Your task to perform on an android device: show emergency info Image 0: 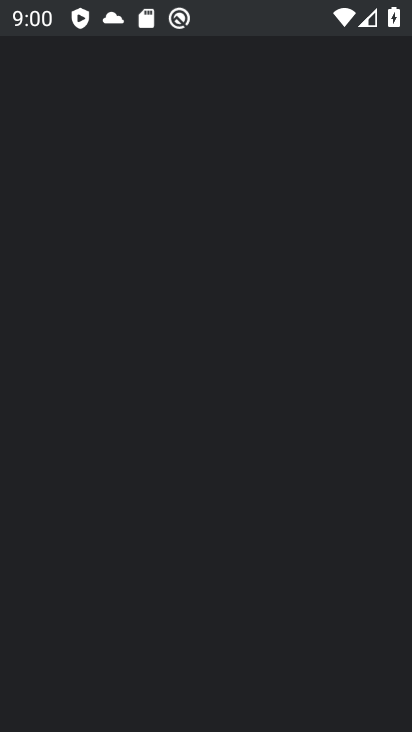
Step 0: drag from (266, 679) to (186, 210)
Your task to perform on an android device: show emergency info Image 1: 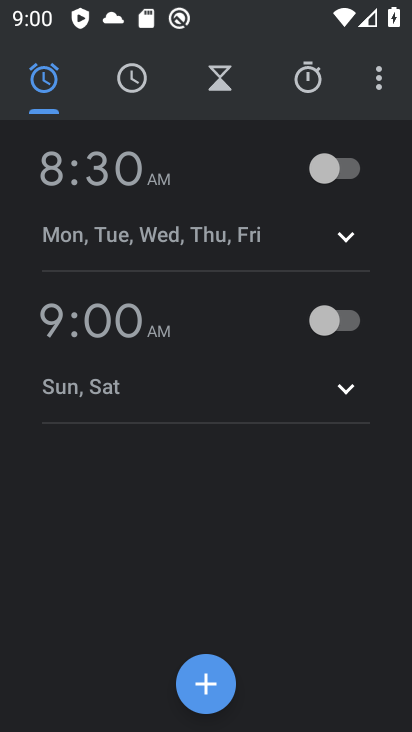
Step 1: press home button
Your task to perform on an android device: show emergency info Image 2: 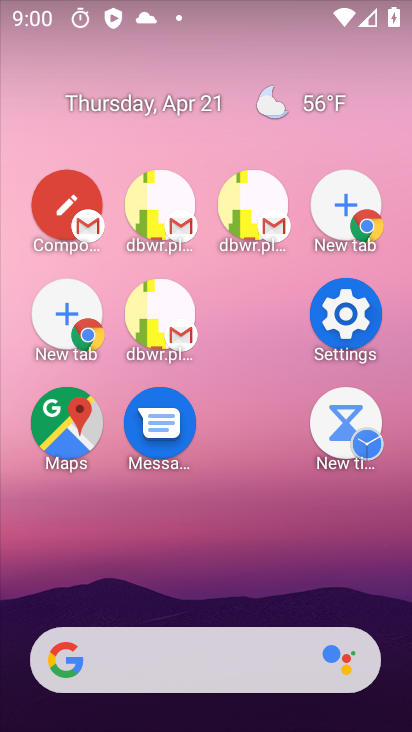
Step 2: drag from (304, 371) to (249, 107)
Your task to perform on an android device: show emergency info Image 3: 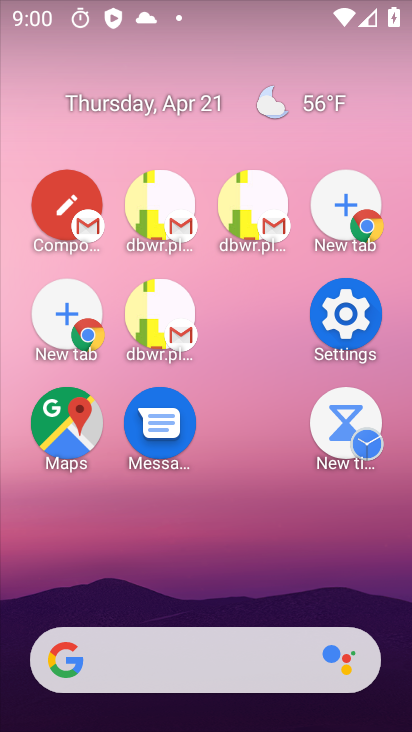
Step 3: drag from (269, 344) to (220, 39)
Your task to perform on an android device: show emergency info Image 4: 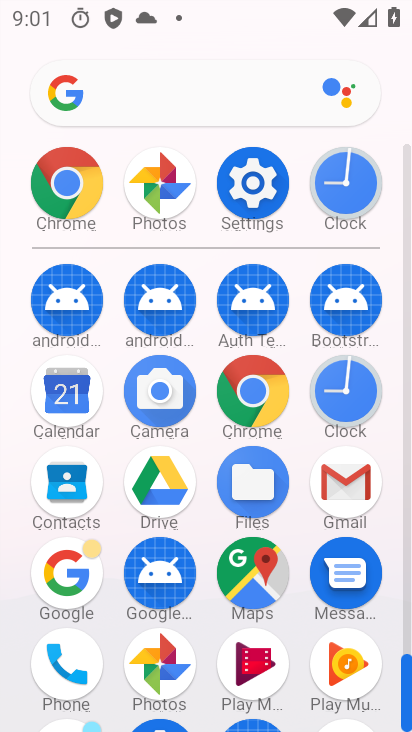
Step 4: click (253, 171)
Your task to perform on an android device: show emergency info Image 5: 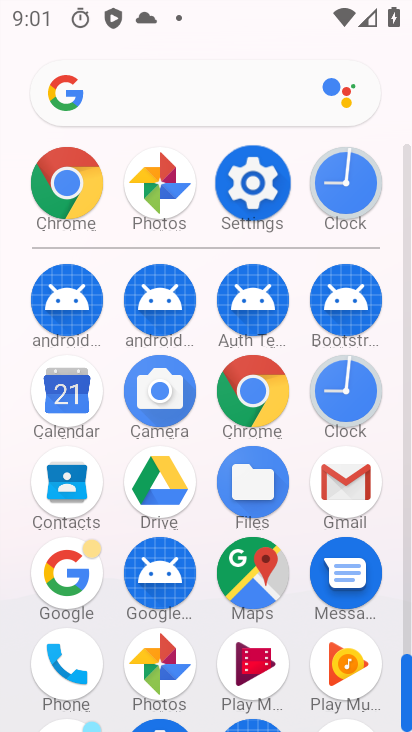
Step 5: click (253, 172)
Your task to perform on an android device: show emergency info Image 6: 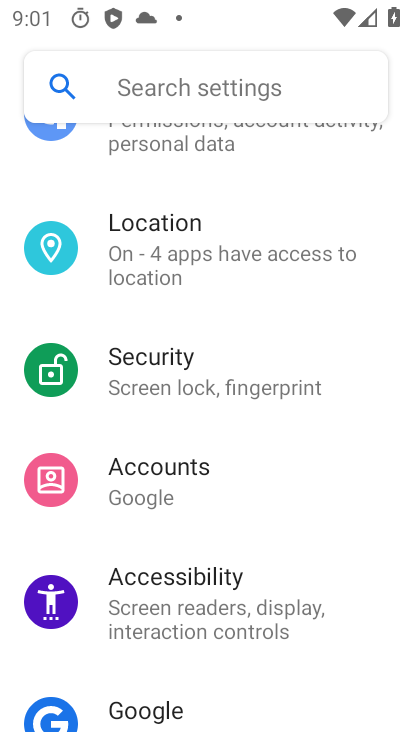
Step 6: drag from (167, 499) to (202, 253)
Your task to perform on an android device: show emergency info Image 7: 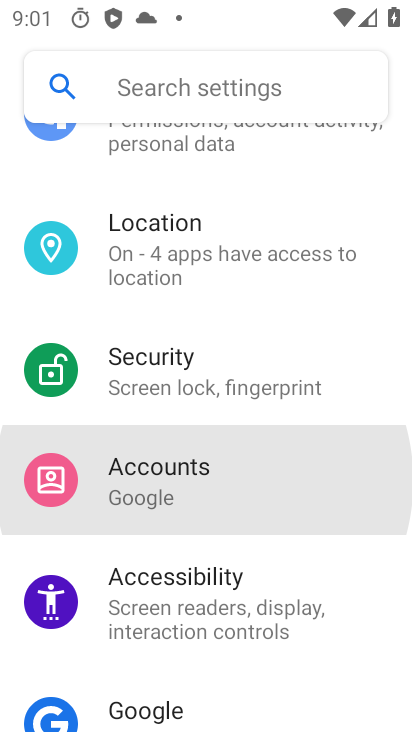
Step 7: drag from (227, 552) to (227, 272)
Your task to perform on an android device: show emergency info Image 8: 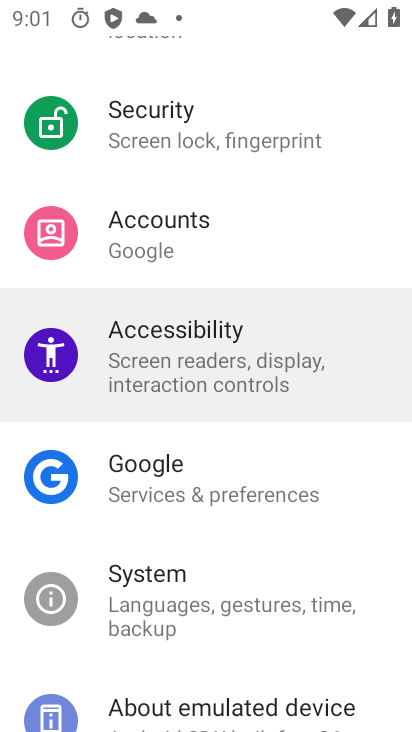
Step 8: drag from (193, 586) to (235, 172)
Your task to perform on an android device: show emergency info Image 9: 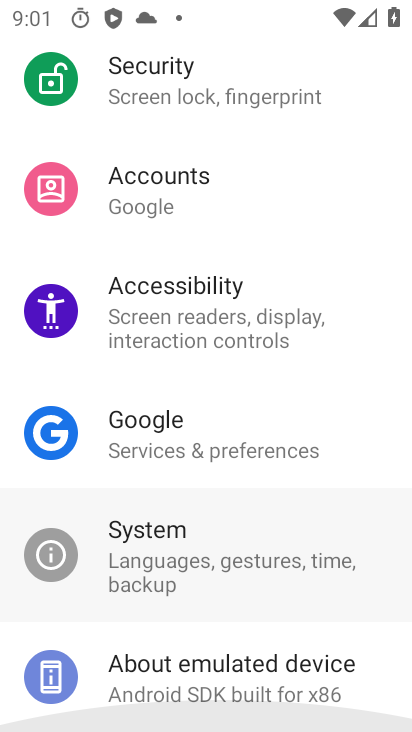
Step 9: drag from (228, 519) to (248, 196)
Your task to perform on an android device: show emergency info Image 10: 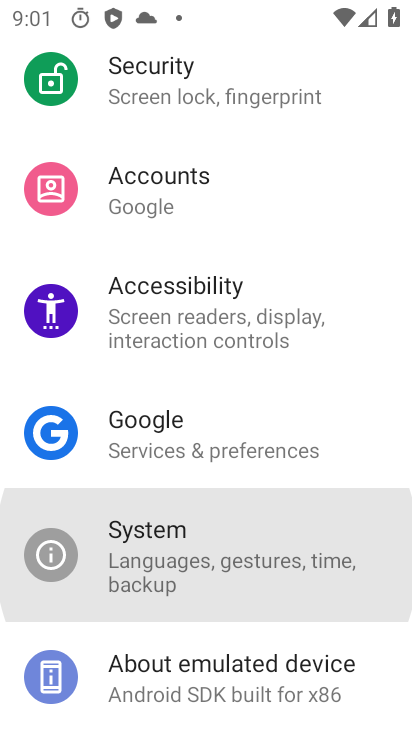
Step 10: drag from (246, 425) to (252, 177)
Your task to perform on an android device: show emergency info Image 11: 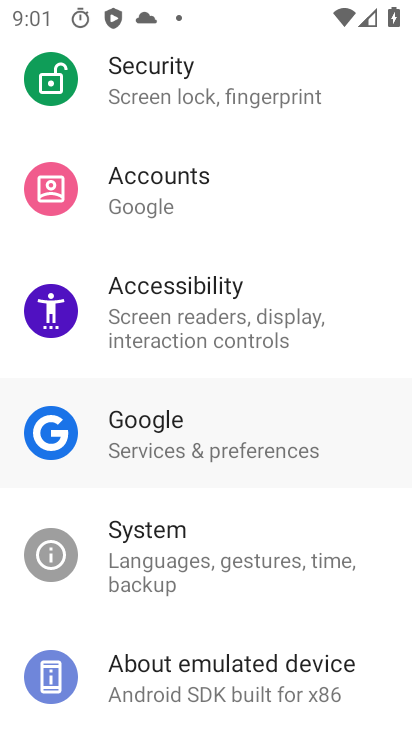
Step 11: drag from (271, 492) to (300, 242)
Your task to perform on an android device: show emergency info Image 12: 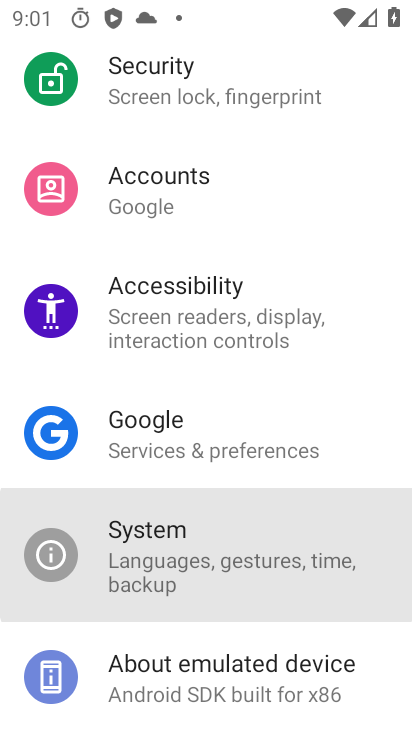
Step 12: drag from (227, 443) to (271, 95)
Your task to perform on an android device: show emergency info Image 13: 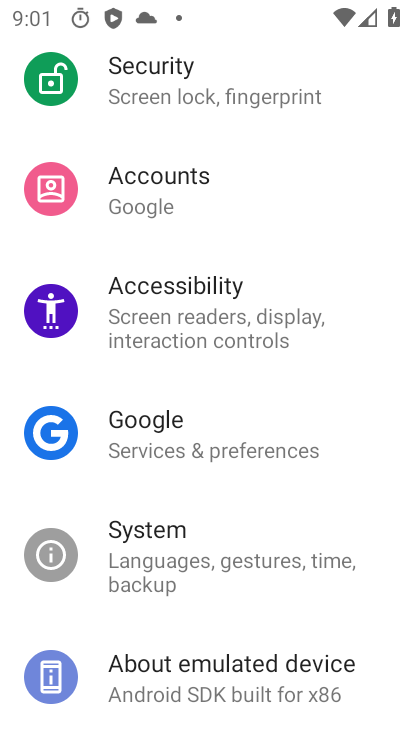
Step 13: click (224, 689)
Your task to perform on an android device: show emergency info Image 14: 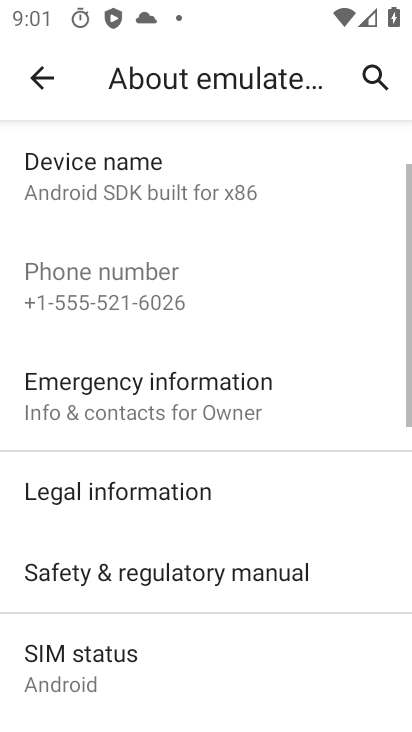
Step 14: drag from (132, 221) to (143, 468)
Your task to perform on an android device: show emergency info Image 15: 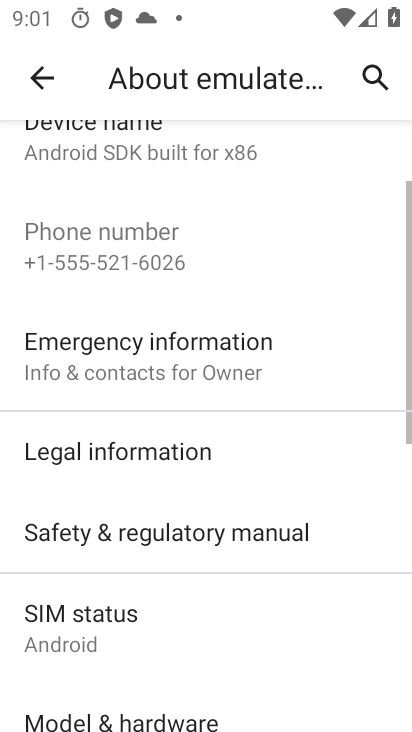
Step 15: drag from (143, 363) to (167, 402)
Your task to perform on an android device: show emergency info Image 16: 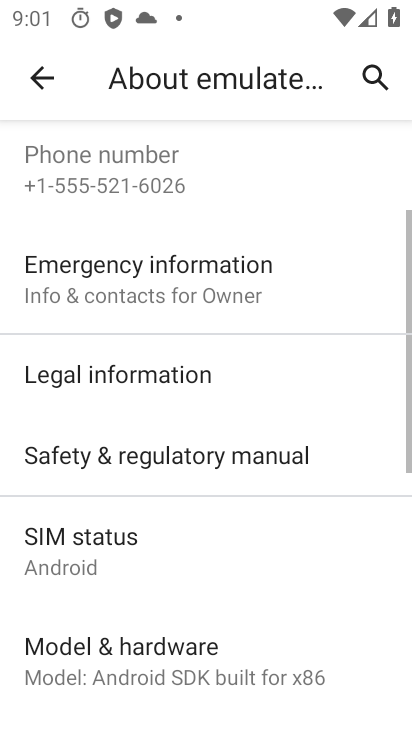
Step 16: click (102, 290)
Your task to perform on an android device: show emergency info Image 17: 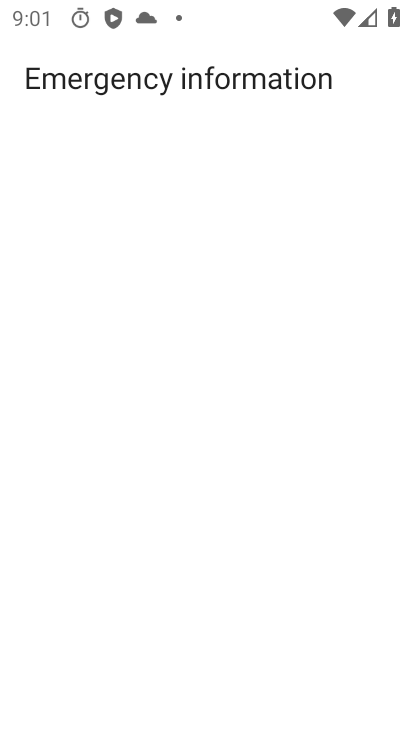
Step 17: task complete